Your task to perform on an android device: turn off javascript in the chrome app Image 0: 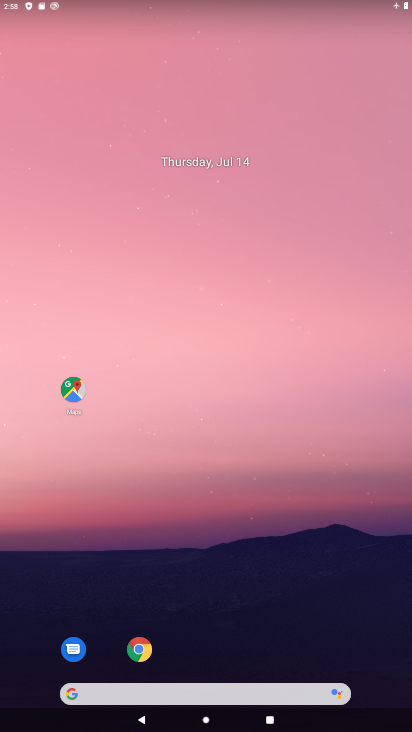
Step 0: click (138, 649)
Your task to perform on an android device: turn off javascript in the chrome app Image 1: 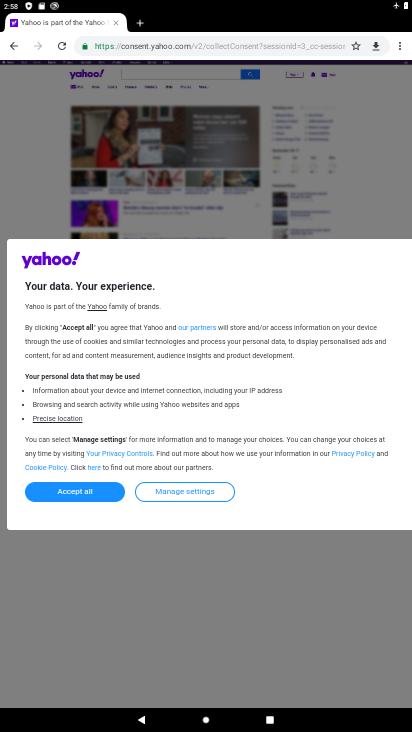
Step 1: click (396, 43)
Your task to perform on an android device: turn off javascript in the chrome app Image 2: 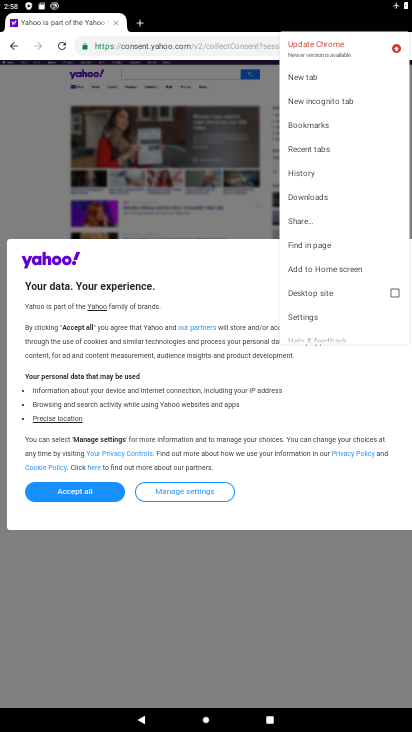
Step 2: click (310, 315)
Your task to perform on an android device: turn off javascript in the chrome app Image 3: 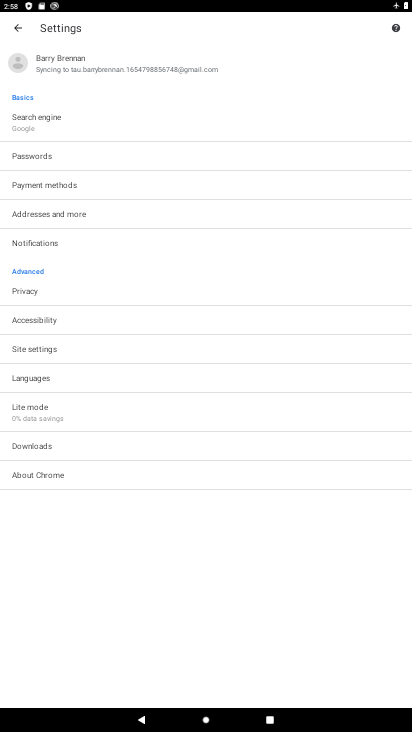
Step 3: click (71, 349)
Your task to perform on an android device: turn off javascript in the chrome app Image 4: 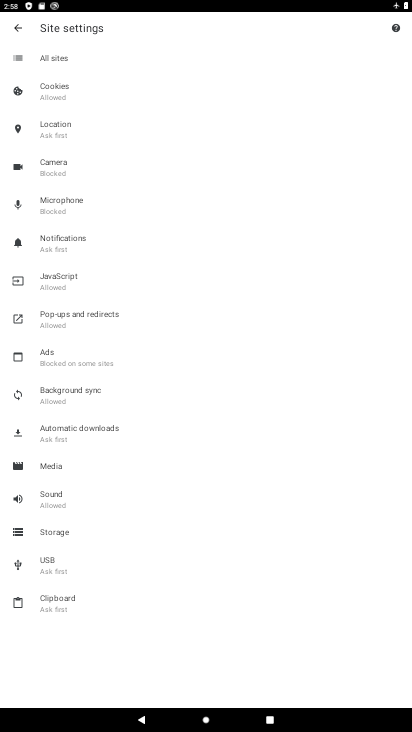
Step 4: click (79, 284)
Your task to perform on an android device: turn off javascript in the chrome app Image 5: 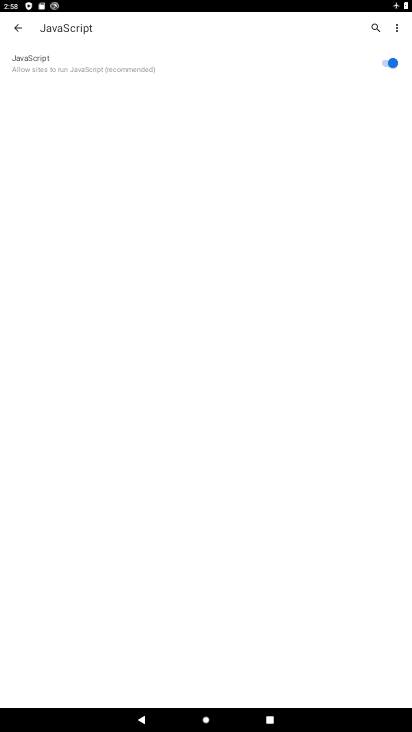
Step 5: click (368, 62)
Your task to perform on an android device: turn off javascript in the chrome app Image 6: 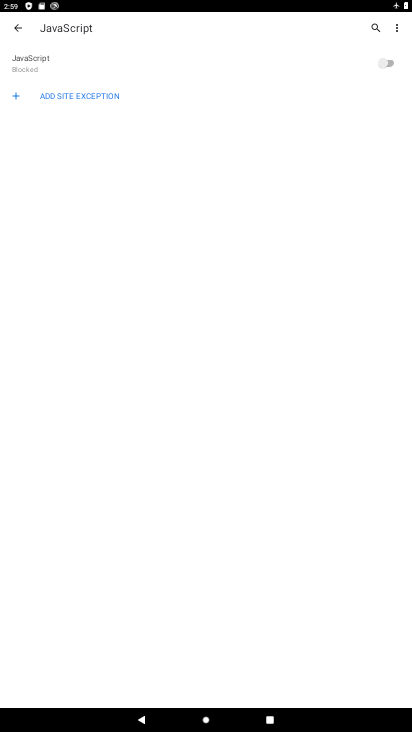
Step 6: task complete